Your task to perform on an android device: check the backup settings in the google photos Image 0: 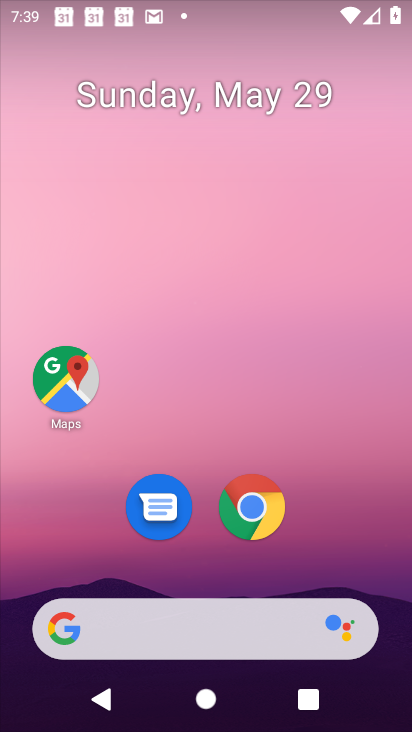
Step 0: click (309, 39)
Your task to perform on an android device: check the backup settings in the google photos Image 1: 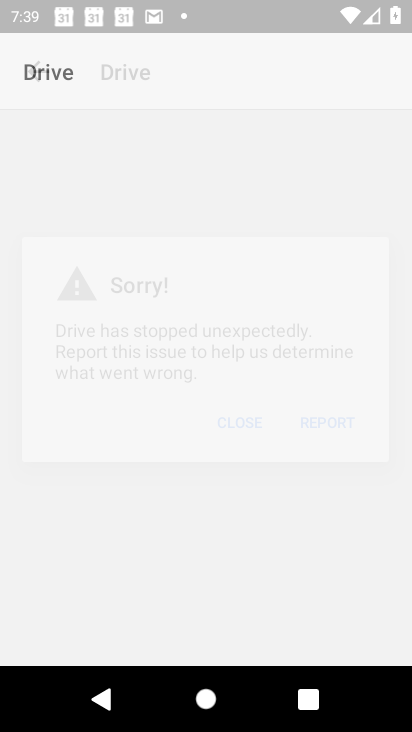
Step 1: click (204, 696)
Your task to perform on an android device: check the backup settings in the google photos Image 2: 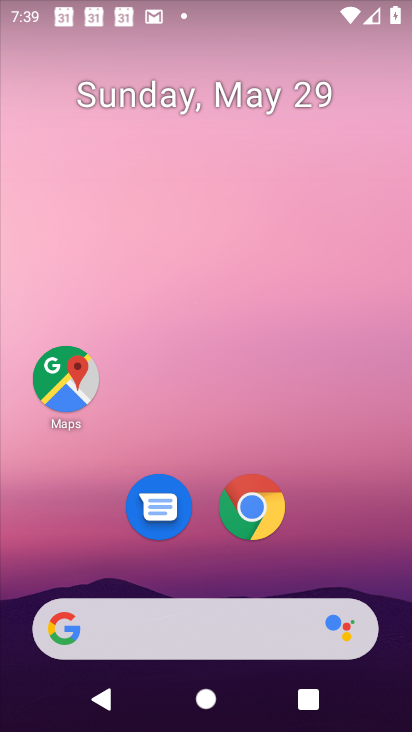
Step 2: drag from (349, 543) to (202, 13)
Your task to perform on an android device: check the backup settings in the google photos Image 3: 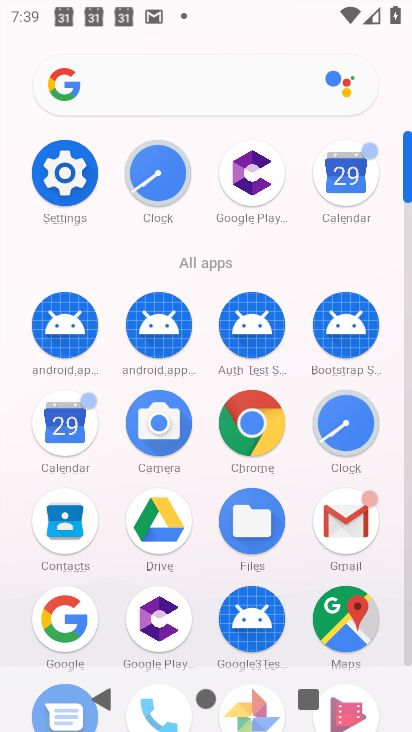
Step 3: click (407, 641)
Your task to perform on an android device: check the backup settings in the google photos Image 4: 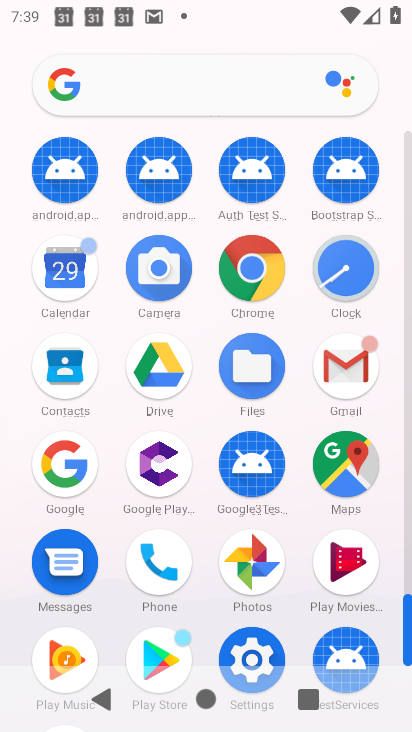
Step 4: click (255, 546)
Your task to perform on an android device: check the backup settings in the google photos Image 5: 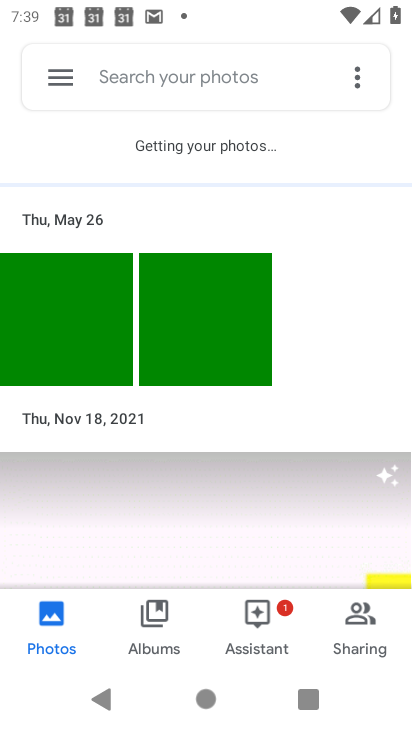
Step 5: task complete